Your task to perform on an android device: change the clock display to show seconds Image 0: 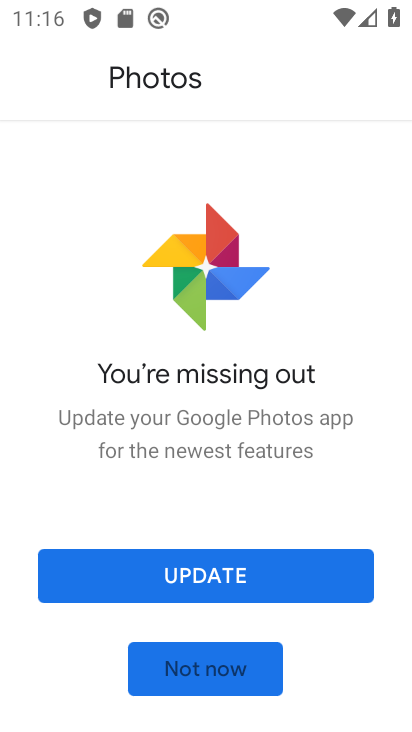
Step 0: press back button
Your task to perform on an android device: change the clock display to show seconds Image 1: 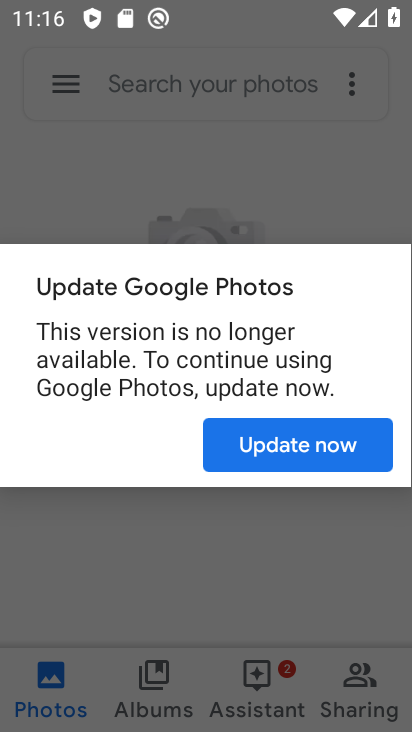
Step 1: press home button
Your task to perform on an android device: change the clock display to show seconds Image 2: 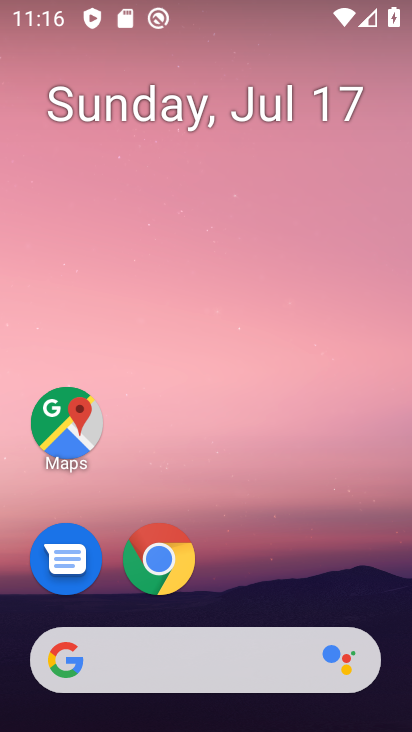
Step 2: drag from (205, 618) to (302, 32)
Your task to perform on an android device: change the clock display to show seconds Image 3: 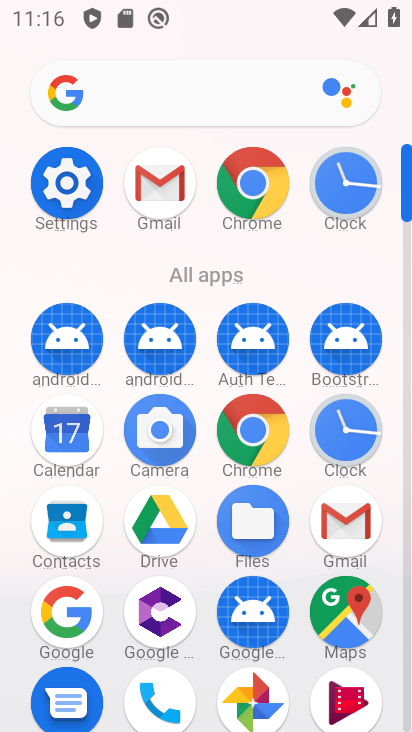
Step 3: click (340, 416)
Your task to perform on an android device: change the clock display to show seconds Image 4: 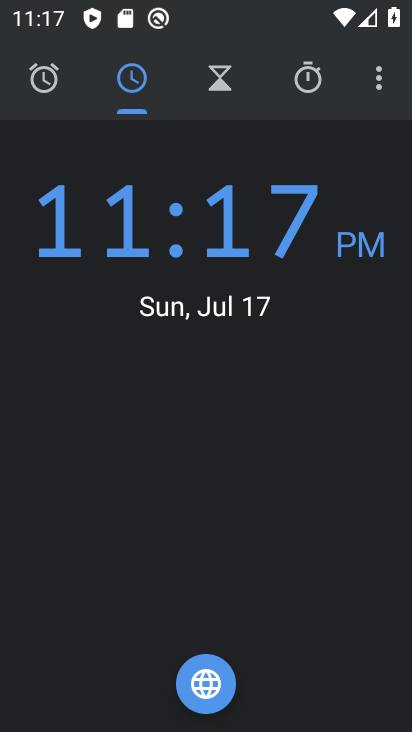
Step 4: click (379, 67)
Your task to perform on an android device: change the clock display to show seconds Image 5: 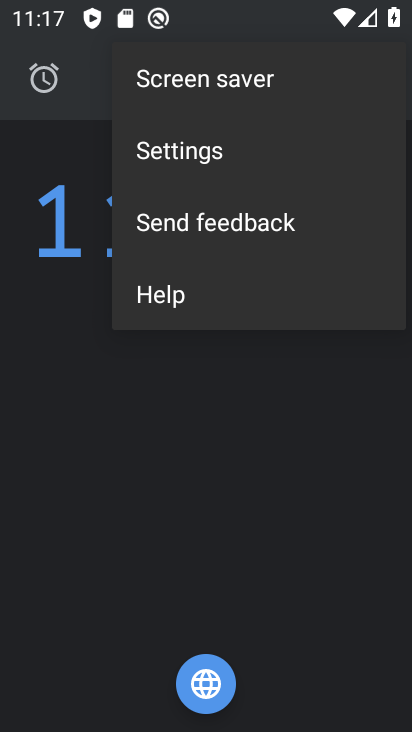
Step 5: click (256, 165)
Your task to perform on an android device: change the clock display to show seconds Image 6: 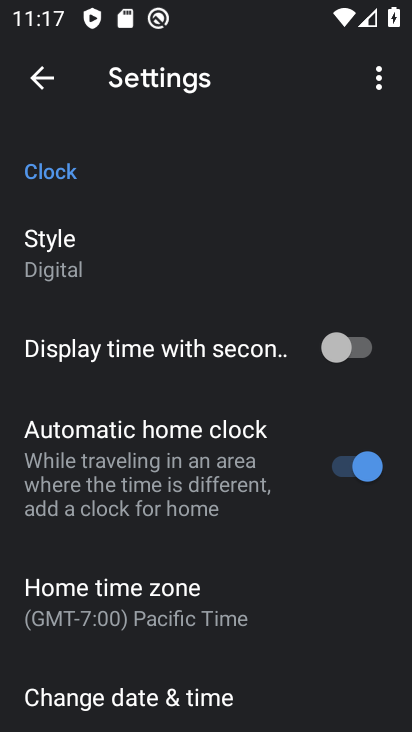
Step 6: click (330, 344)
Your task to perform on an android device: change the clock display to show seconds Image 7: 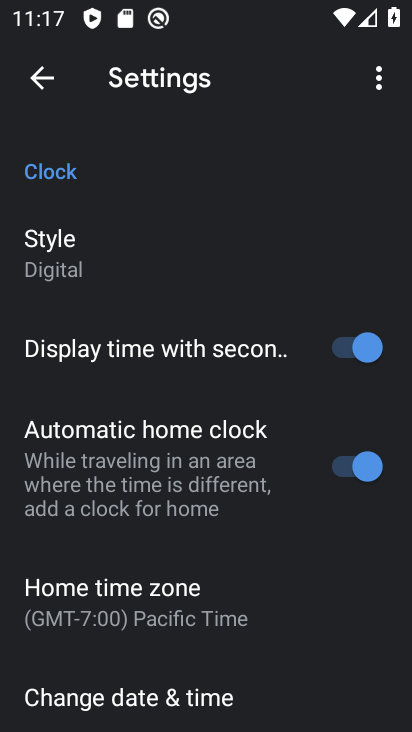
Step 7: task complete